Your task to perform on an android device: choose inbox layout in the gmail app Image 0: 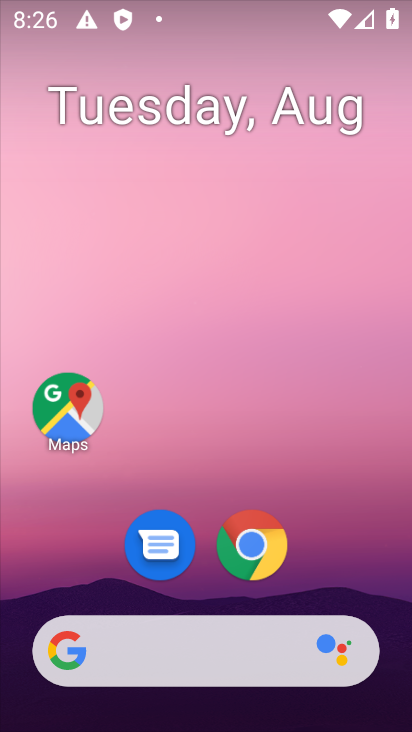
Step 0: drag from (75, 566) to (290, 125)
Your task to perform on an android device: choose inbox layout in the gmail app Image 1: 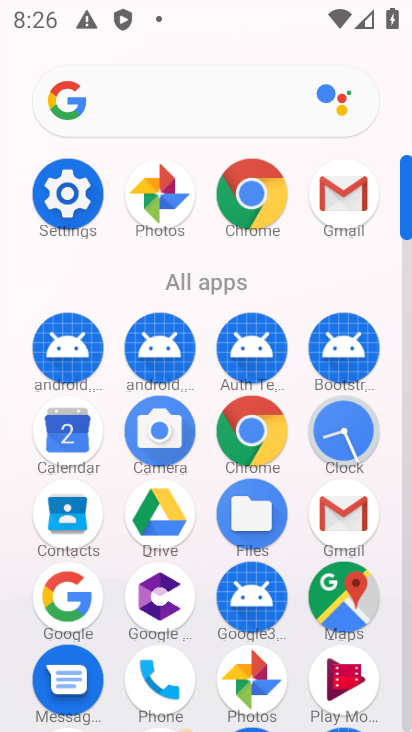
Step 1: click (336, 203)
Your task to perform on an android device: choose inbox layout in the gmail app Image 2: 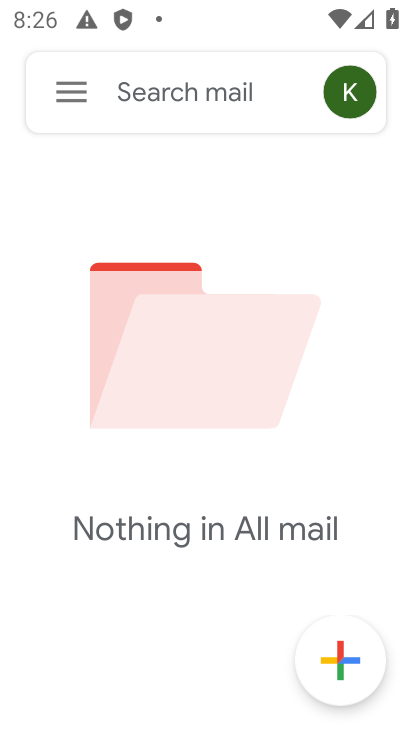
Step 2: click (78, 95)
Your task to perform on an android device: choose inbox layout in the gmail app Image 3: 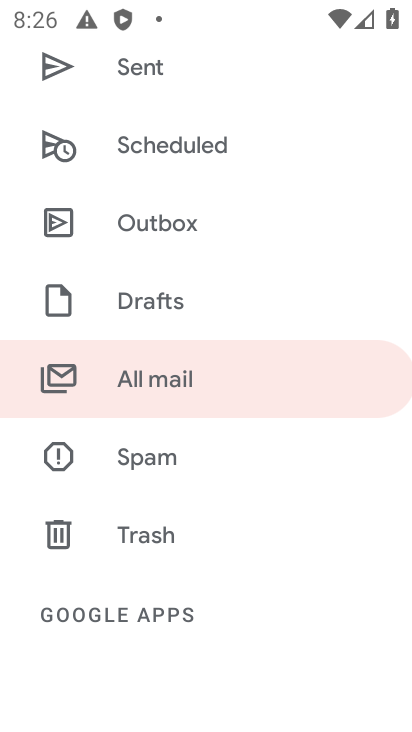
Step 3: drag from (0, 612) to (206, 105)
Your task to perform on an android device: choose inbox layout in the gmail app Image 4: 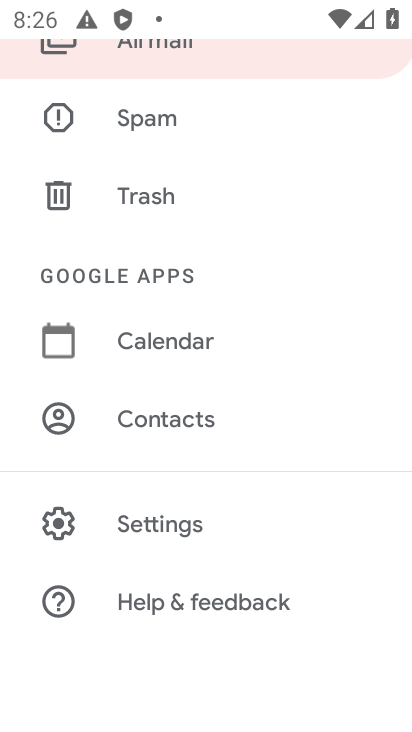
Step 4: click (121, 511)
Your task to perform on an android device: choose inbox layout in the gmail app Image 5: 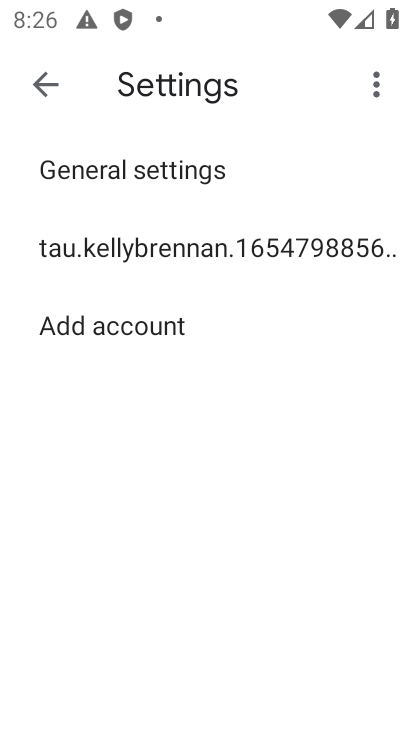
Step 5: click (172, 161)
Your task to perform on an android device: choose inbox layout in the gmail app Image 6: 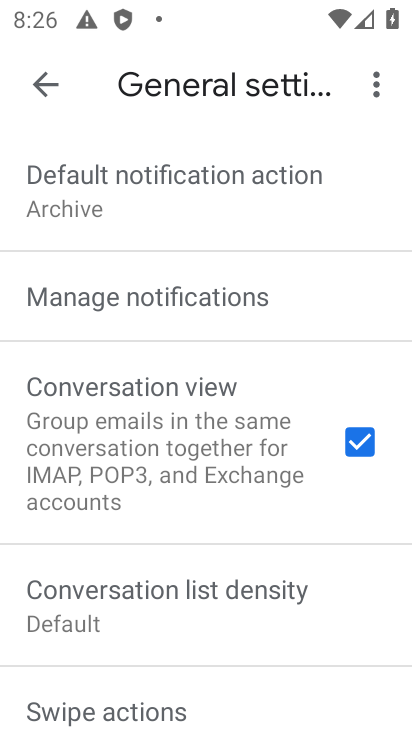
Step 6: task complete